Your task to perform on an android device: change text size in settings app Image 0: 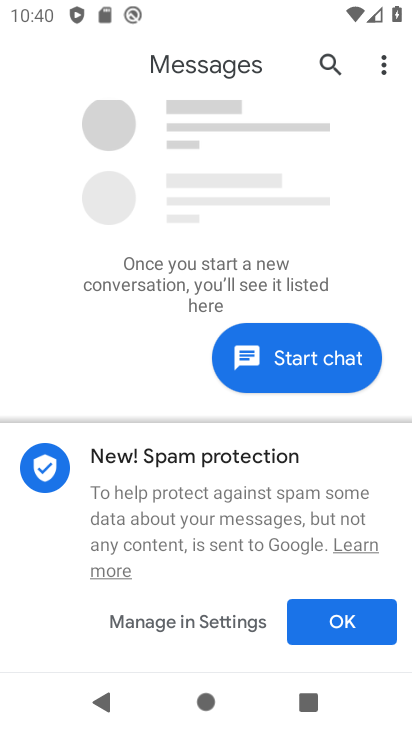
Step 0: press back button
Your task to perform on an android device: change text size in settings app Image 1: 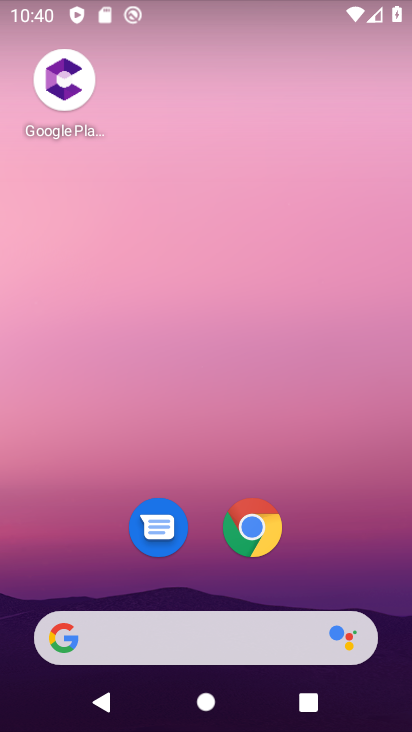
Step 1: drag from (152, 579) to (348, 17)
Your task to perform on an android device: change text size in settings app Image 2: 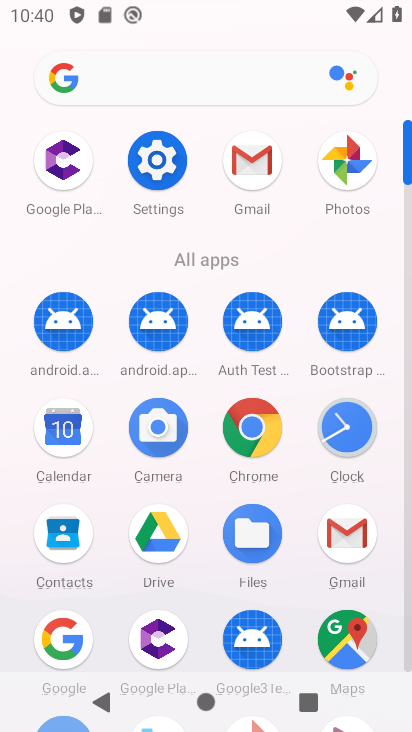
Step 2: click (148, 148)
Your task to perform on an android device: change text size in settings app Image 3: 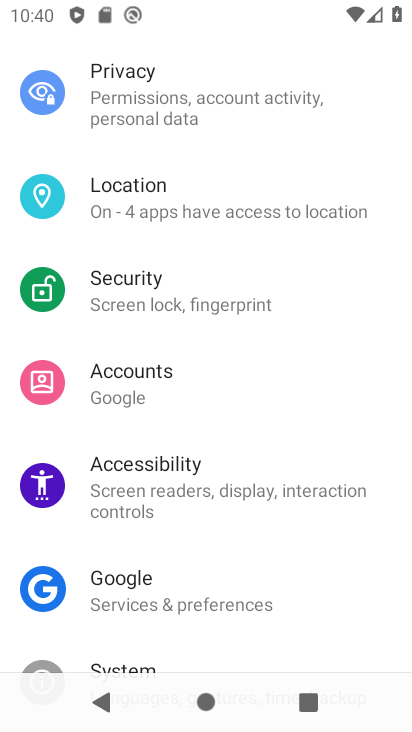
Step 3: drag from (154, 80) to (146, 707)
Your task to perform on an android device: change text size in settings app Image 4: 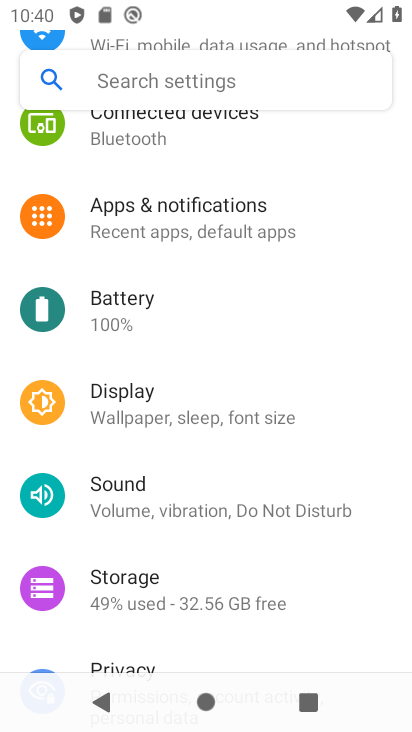
Step 4: click (142, 77)
Your task to perform on an android device: change text size in settings app Image 5: 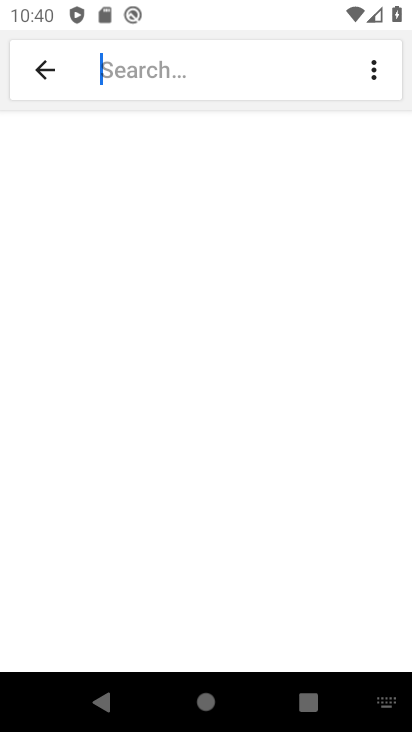
Step 5: type "text size"
Your task to perform on an android device: change text size in settings app Image 6: 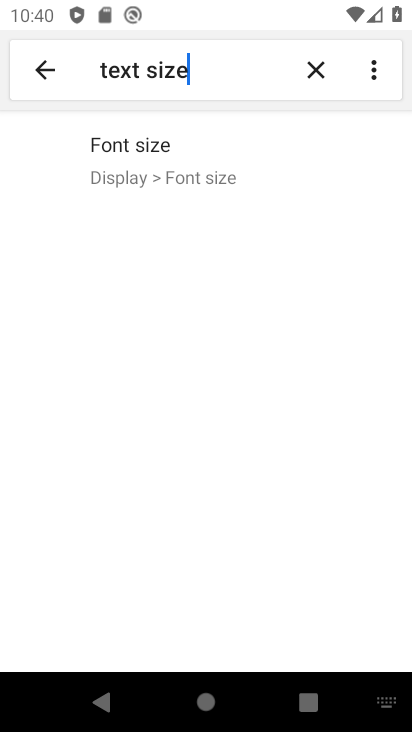
Step 6: click (157, 152)
Your task to perform on an android device: change text size in settings app Image 7: 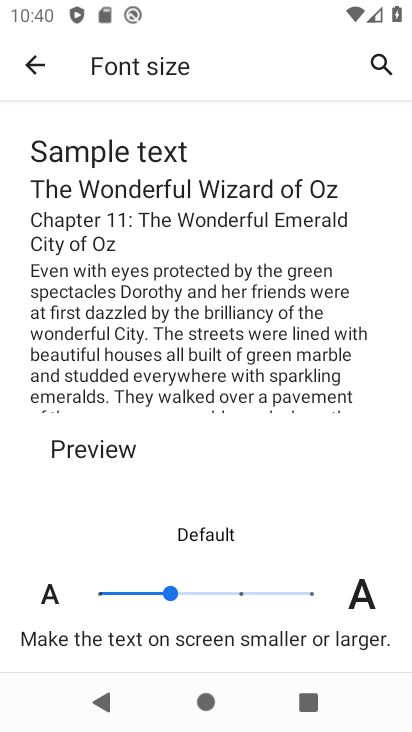
Step 7: click (166, 593)
Your task to perform on an android device: change text size in settings app Image 8: 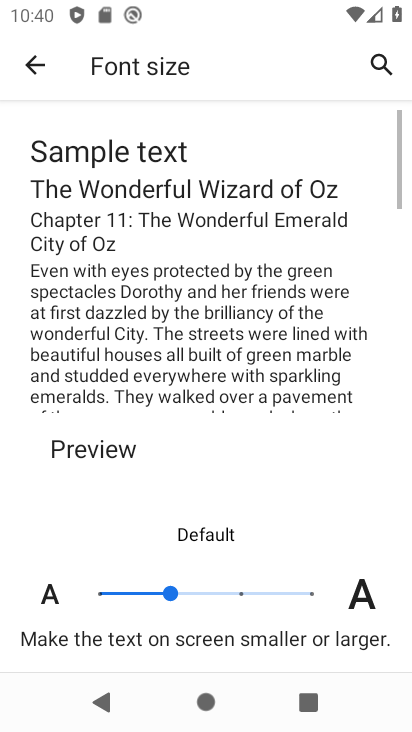
Step 8: task complete